Your task to perform on an android device: Open Wikipedia Image 0: 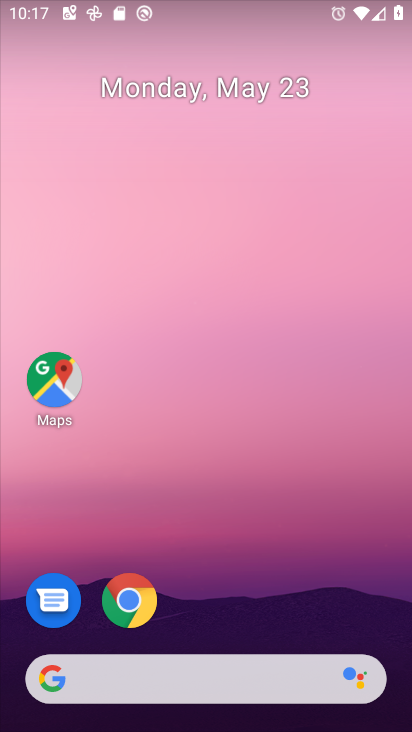
Step 0: click (133, 597)
Your task to perform on an android device: Open Wikipedia Image 1: 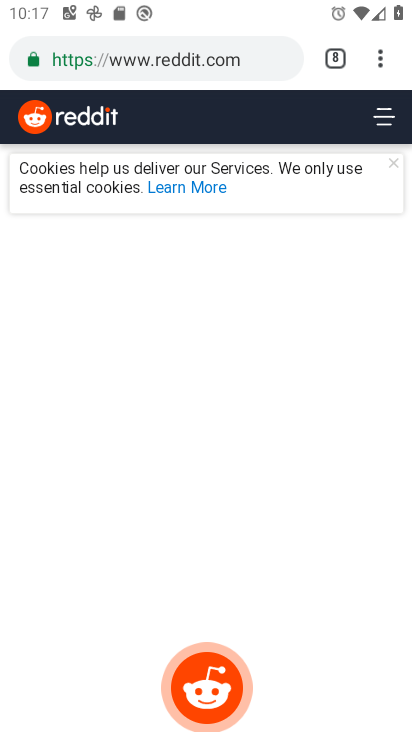
Step 1: click (381, 61)
Your task to perform on an android device: Open Wikipedia Image 2: 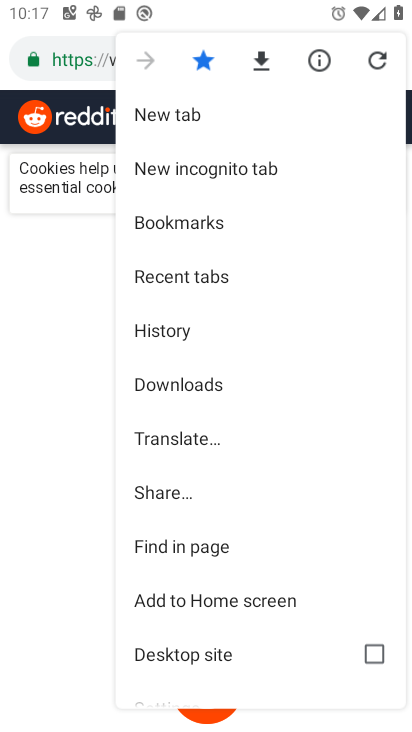
Step 2: click (181, 115)
Your task to perform on an android device: Open Wikipedia Image 3: 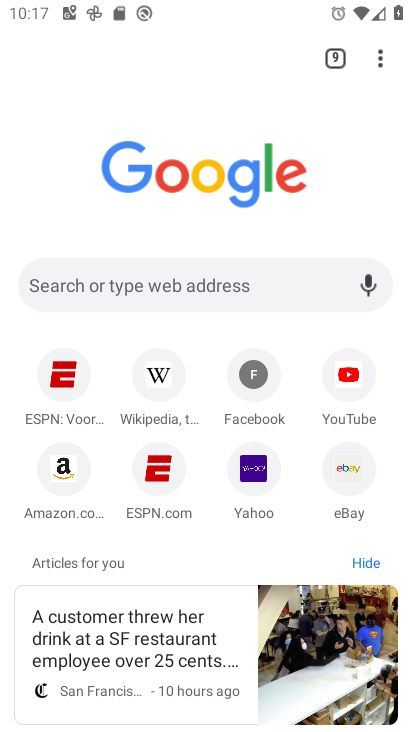
Step 3: click (156, 384)
Your task to perform on an android device: Open Wikipedia Image 4: 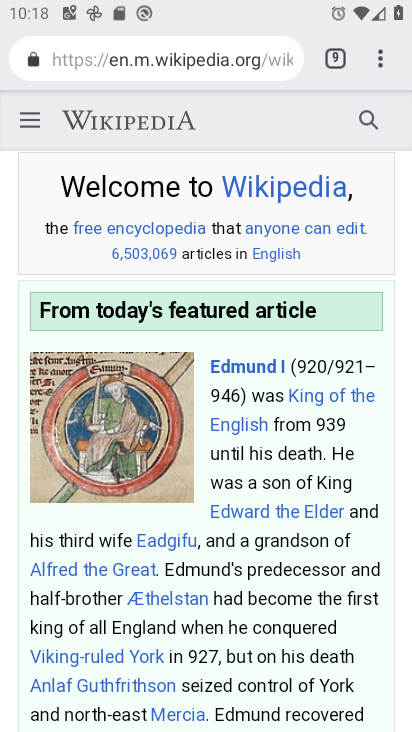
Step 4: task complete